Your task to perform on an android device: Go to Amazon Image 0: 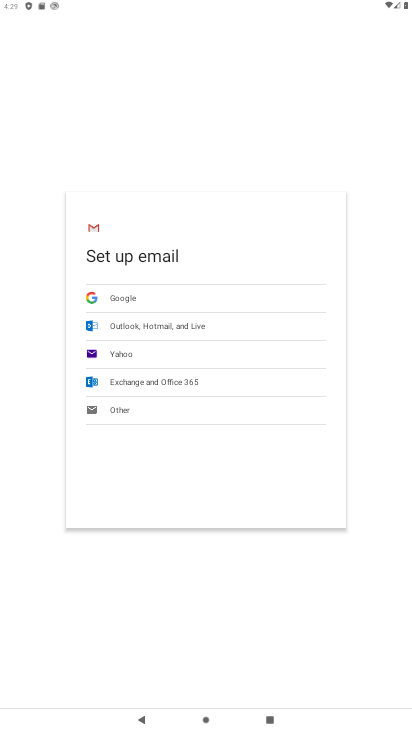
Step 0: press home button
Your task to perform on an android device: Go to Amazon Image 1: 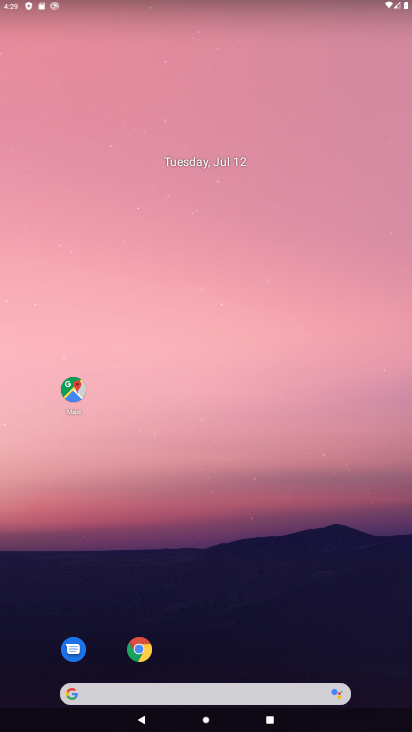
Step 1: click (138, 647)
Your task to perform on an android device: Go to Amazon Image 2: 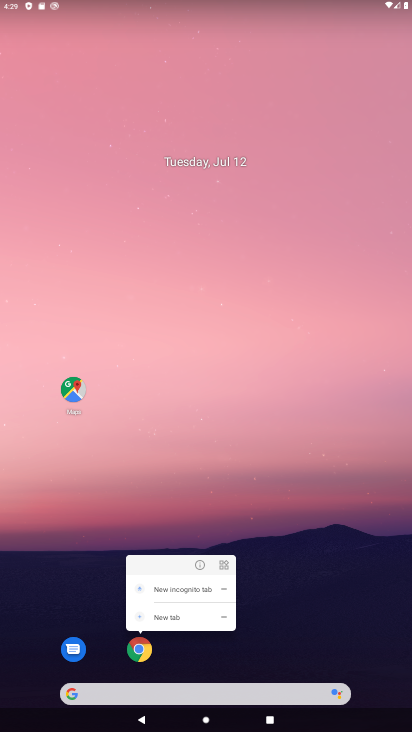
Step 2: click (138, 647)
Your task to perform on an android device: Go to Amazon Image 3: 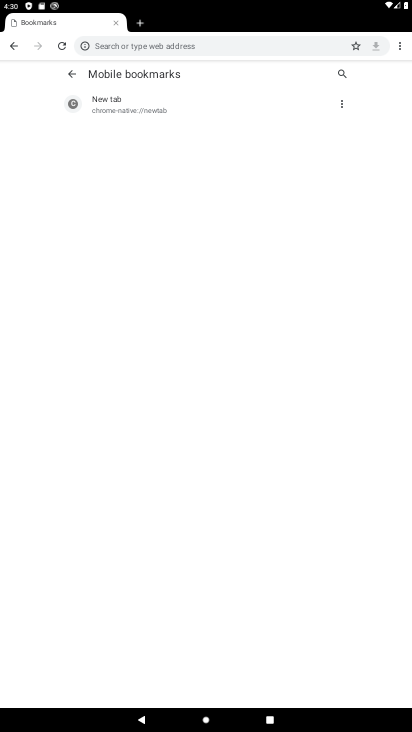
Step 3: click (210, 49)
Your task to perform on an android device: Go to Amazon Image 4: 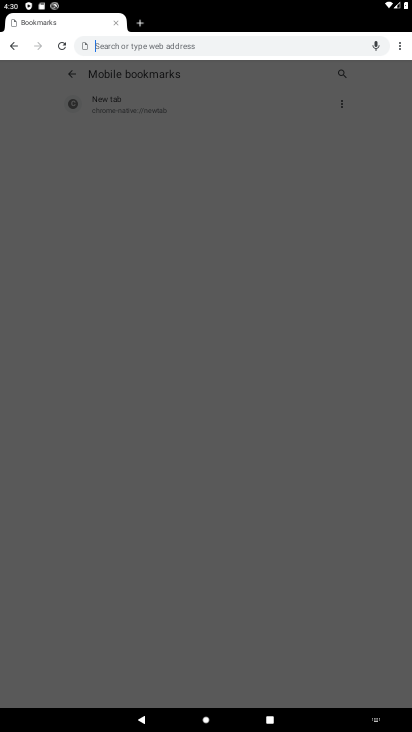
Step 4: type "Amazon"
Your task to perform on an android device: Go to Amazon Image 5: 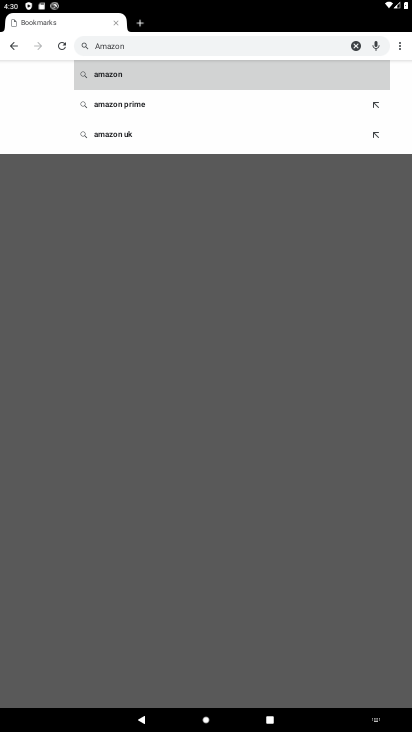
Step 5: click (126, 77)
Your task to perform on an android device: Go to Amazon Image 6: 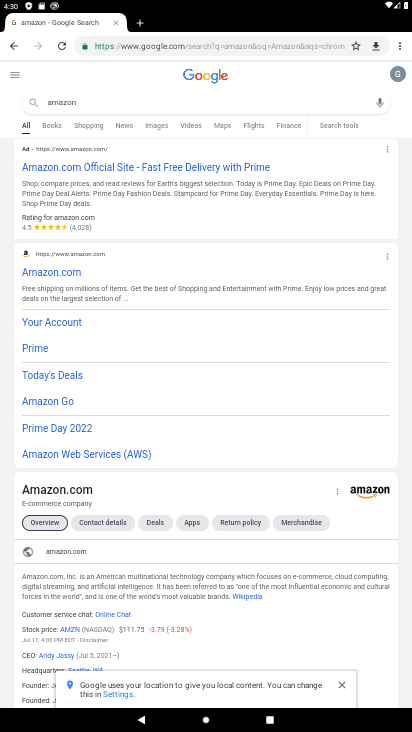
Step 6: click (58, 273)
Your task to perform on an android device: Go to Amazon Image 7: 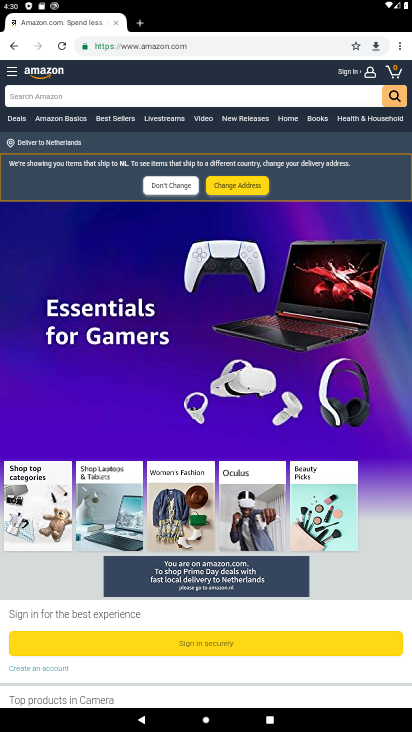
Step 7: task complete